Your task to perform on an android device: Open Wikipedia Image 0: 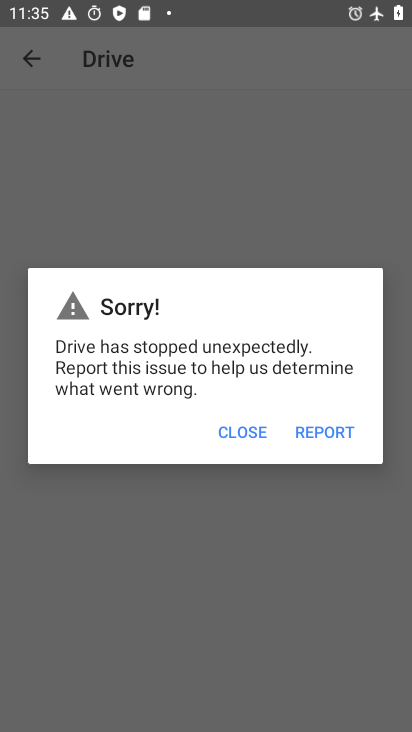
Step 0: press home button
Your task to perform on an android device: Open Wikipedia Image 1: 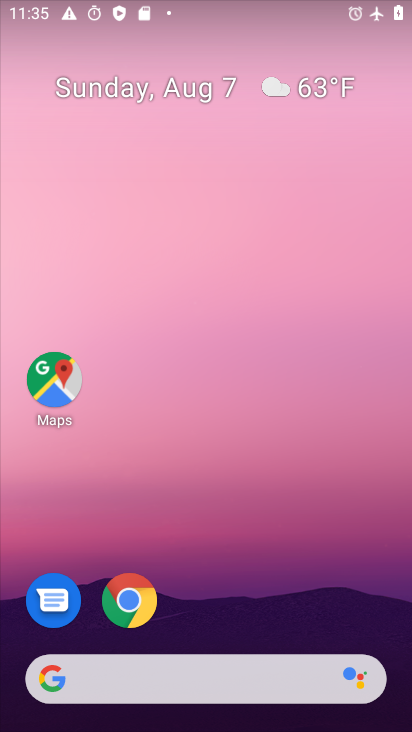
Step 1: drag from (202, 525) to (219, 161)
Your task to perform on an android device: Open Wikipedia Image 2: 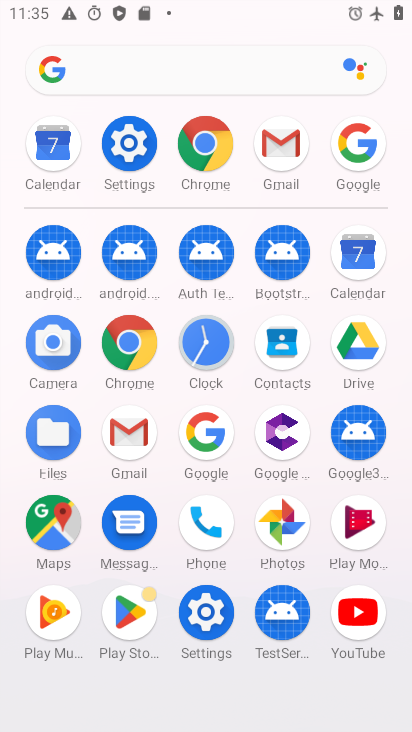
Step 2: click (213, 152)
Your task to perform on an android device: Open Wikipedia Image 3: 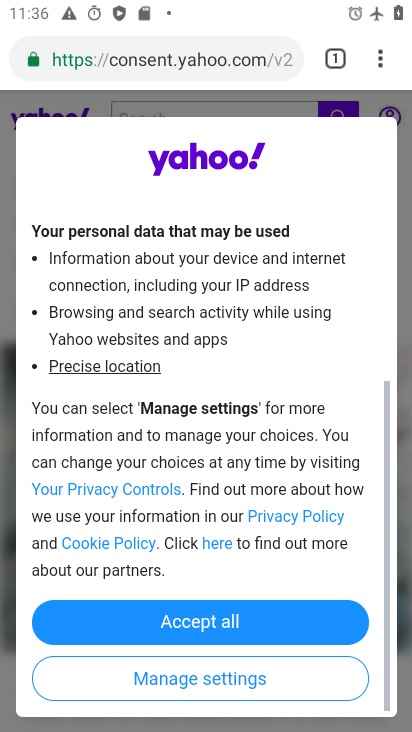
Step 3: drag from (335, 59) to (320, 286)
Your task to perform on an android device: Open Wikipedia Image 4: 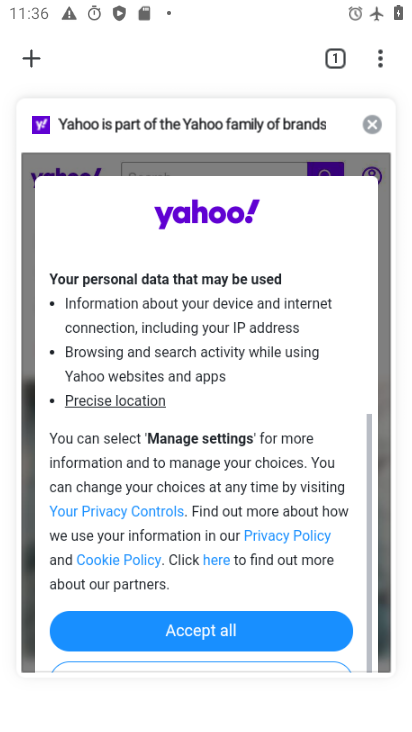
Step 4: click (38, 57)
Your task to perform on an android device: Open Wikipedia Image 5: 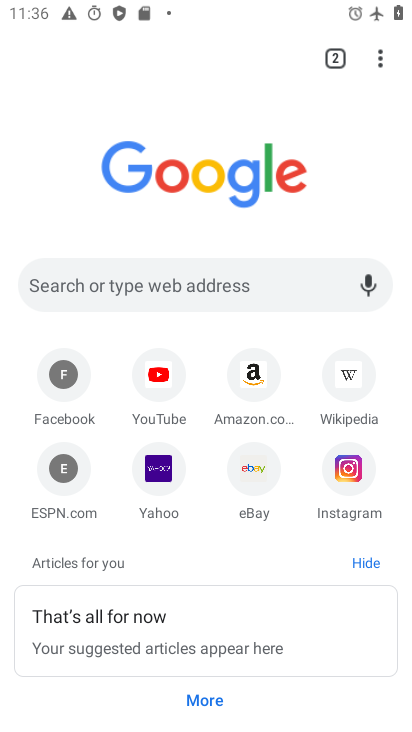
Step 5: click (340, 382)
Your task to perform on an android device: Open Wikipedia Image 6: 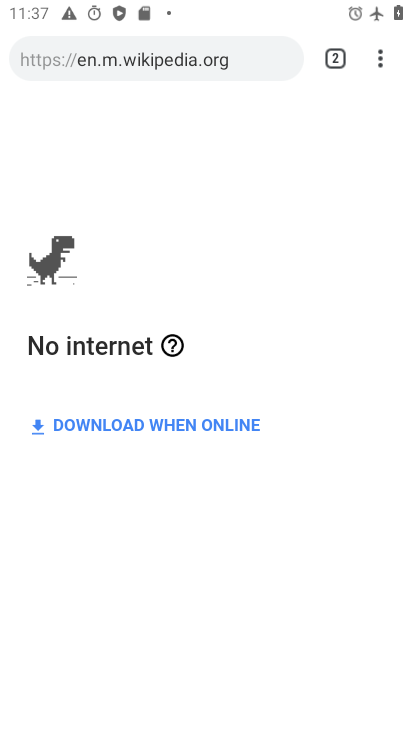
Step 6: task complete